Your task to perform on an android device: Search for Italian restaurants on Maps Image 0: 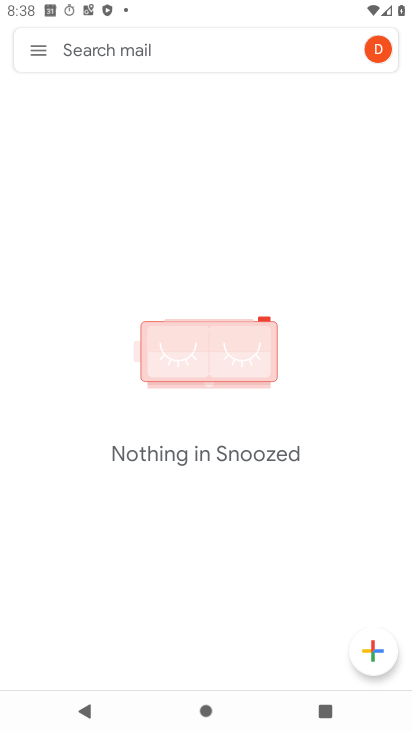
Step 0: press home button
Your task to perform on an android device: Search for Italian restaurants on Maps Image 1: 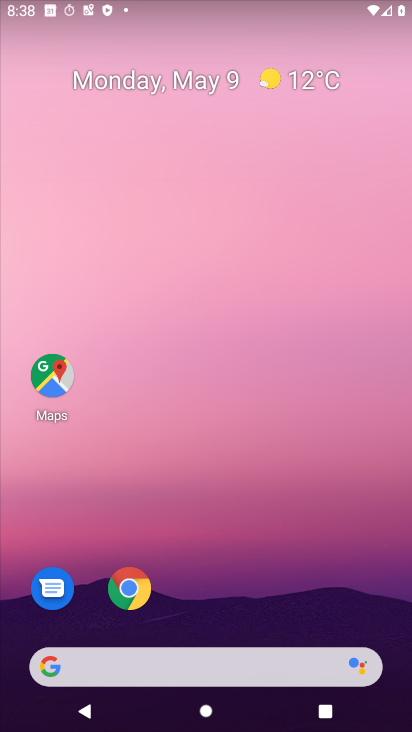
Step 1: drag from (157, 670) to (269, 137)
Your task to perform on an android device: Search for Italian restaurants on Maps Image 2: 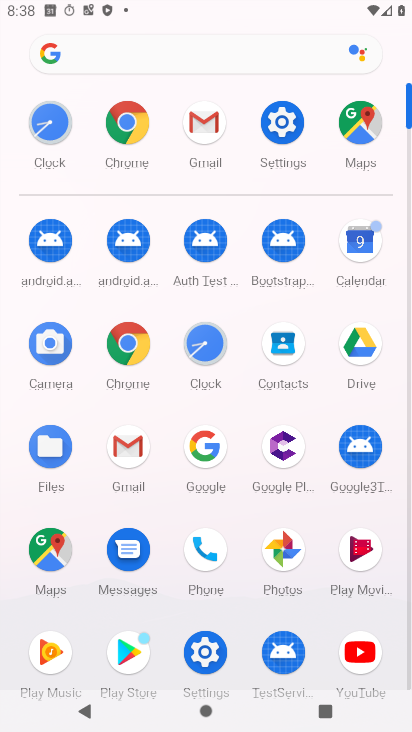
Step 2: click (361, 135)
Your task to perform on an android device: Search for Italian restaurants on Maps Image 3: 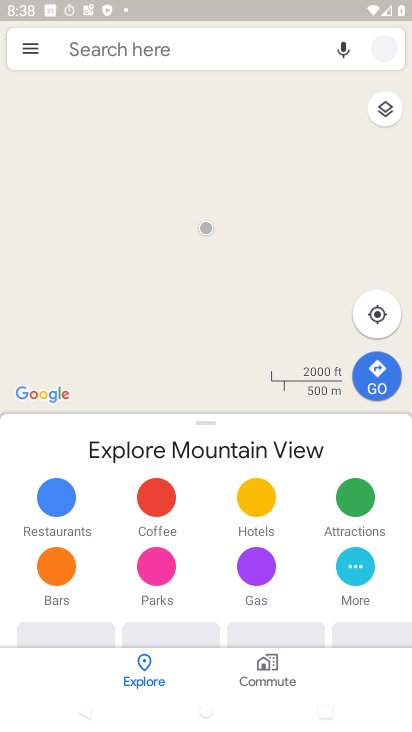
Step 3: click (153, 46)
Your task to perform on an android device: Search for Italian restaurants on Maps Image 4: 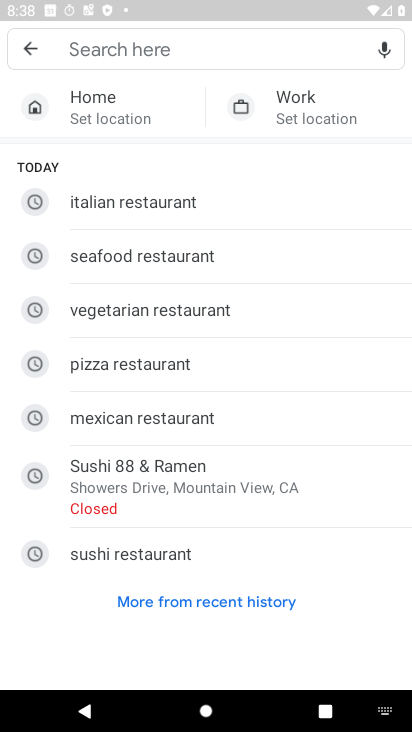
Step 4: click (171, 49)
Your task to perform on an android device: Search for Italian restaurants on Maps Image 5: 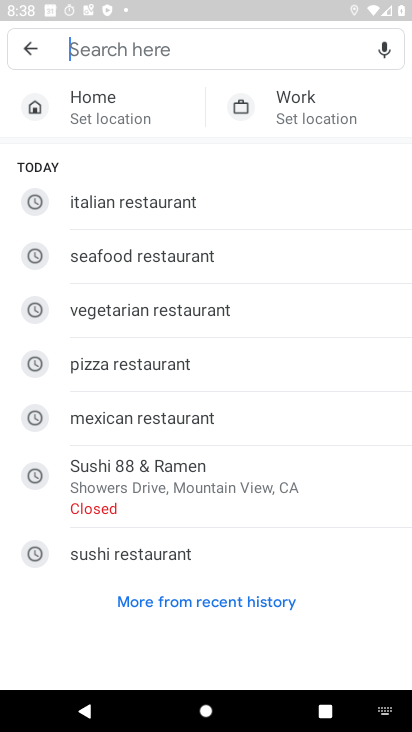
Step 5: click (128, 201)
Your task to perform on an android device: Search for Italian restaurants on Maps Image 6: 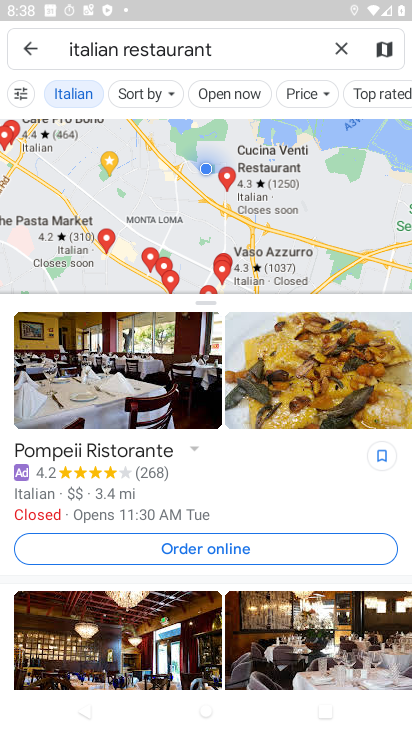
Step 6: task complete